Your task to perform on an android device: turn notification dots off Image 0: 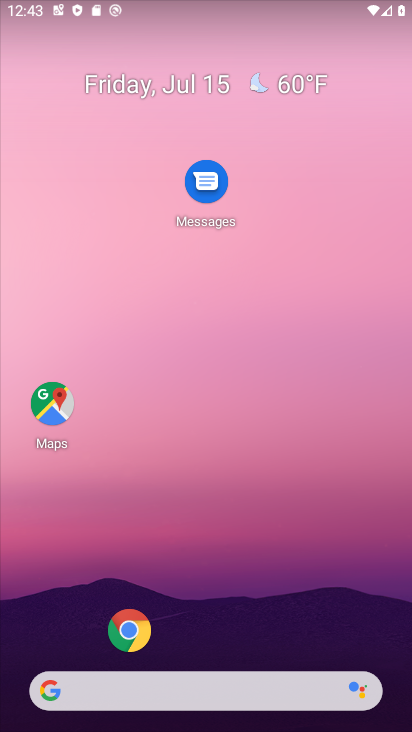
Step 0: drag from (7, 699) to (202, 224)
Your task to perform on an android device: turn notification dots off Image 1: 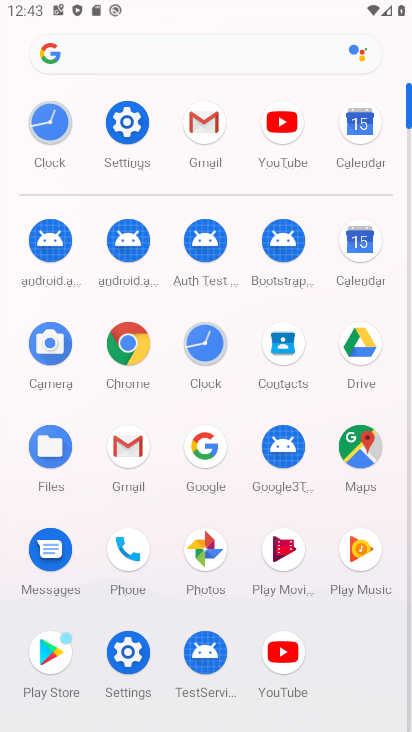
Step 1: click (122, 659)
Your task to perform on an android device: turn notification dots off Image 2: 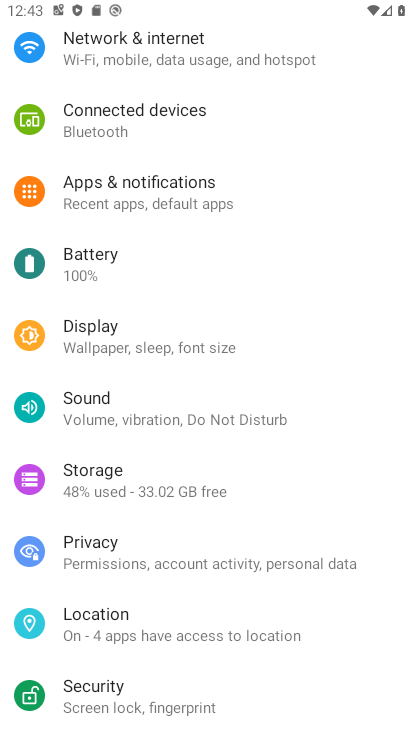
Step 2: click (154, 199)
Your task to perform on an android device: turn notification dots off Image 3: 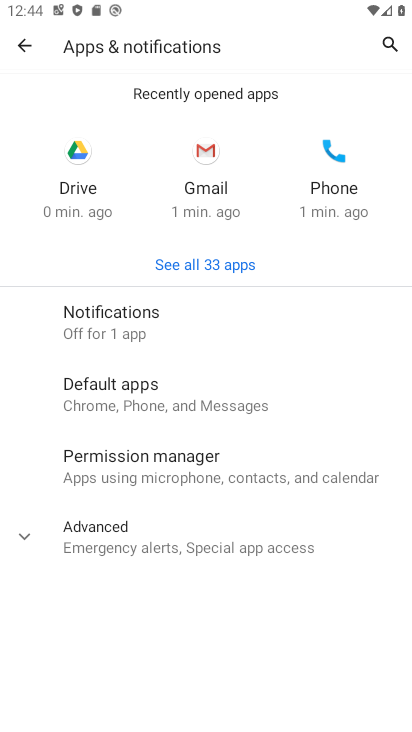
Step 3: click (126, 533)
Your task to perform on an android device: turn notification dots off Image 4: 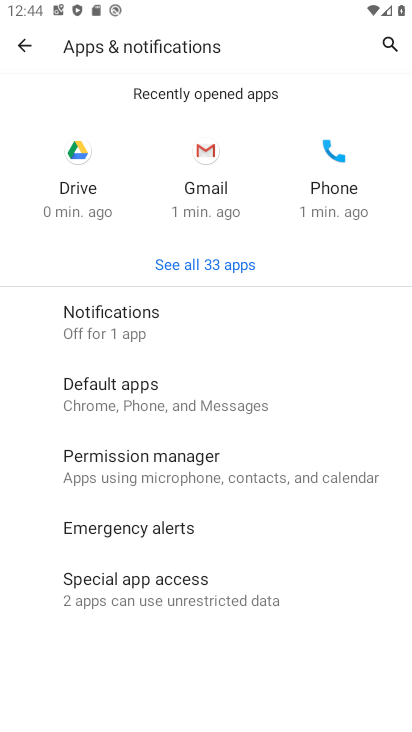
Step 4: click (172, 323)
Your task to perform on an android device: turn notification dots off Image 5: 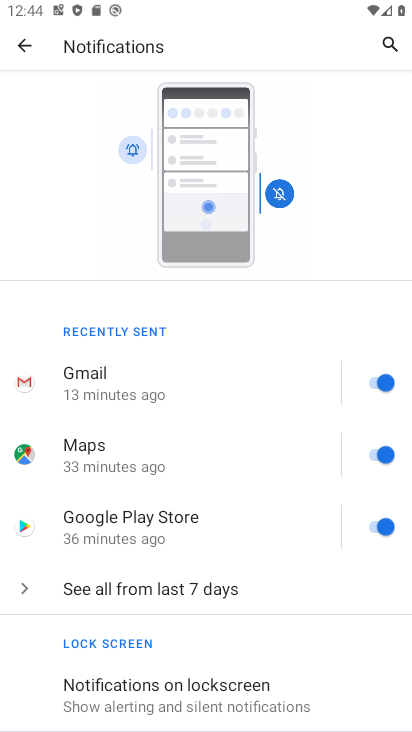
Step 5: drag from (277, 673) to (280, 381)
Your task to perform on an android device: turn notification dots off Image 6: 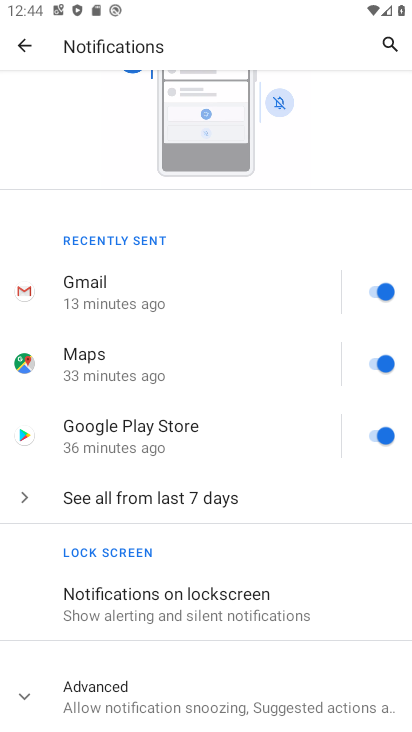
Step 6: drag from (181, 672) to (196, 414)
Your task to perform on an android device: turn notification dots off Image 7: 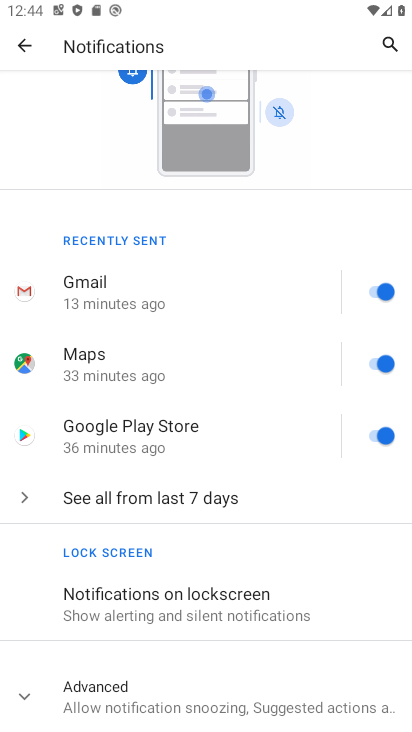
Step 7: drag from (172, 685) to (175, 290)
Your task to perform on an android device: turn notification dots off Image 8: 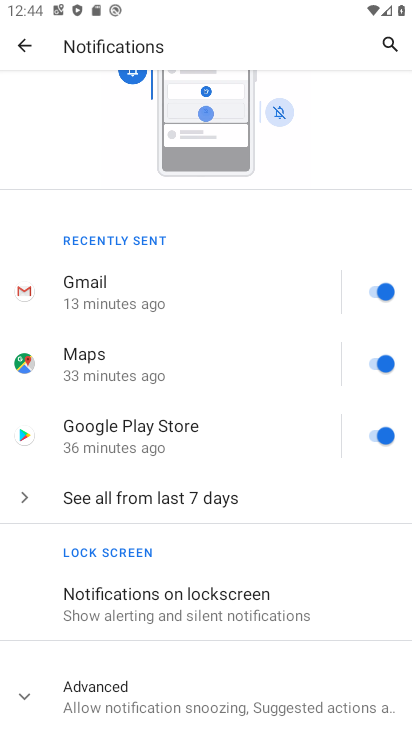
Step 8: drag from (42, 623) to (84, 355)
Your task to perform on an android device: turn notification dots off Image 9: 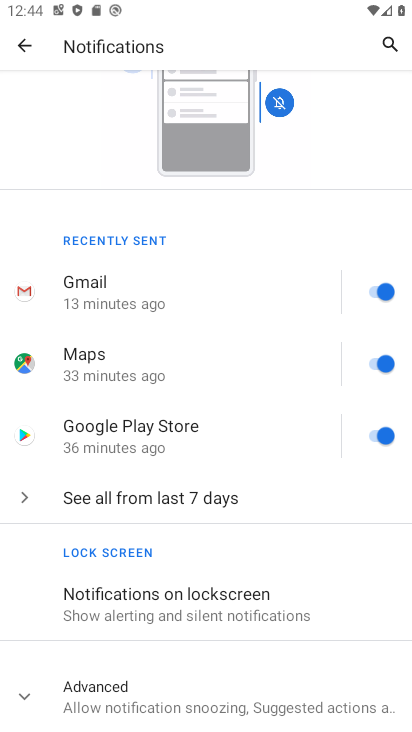
Step 9: drag from (389, 694) to (388, 147)
Your task to perform on an android device: turn notification dots off Image 10: 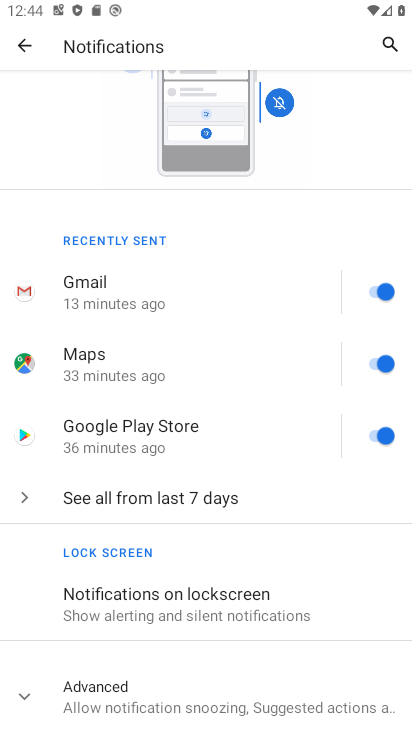
Step 10: click (164, 698)
Your task to perform on an android device: turn notification dots off Image 11: 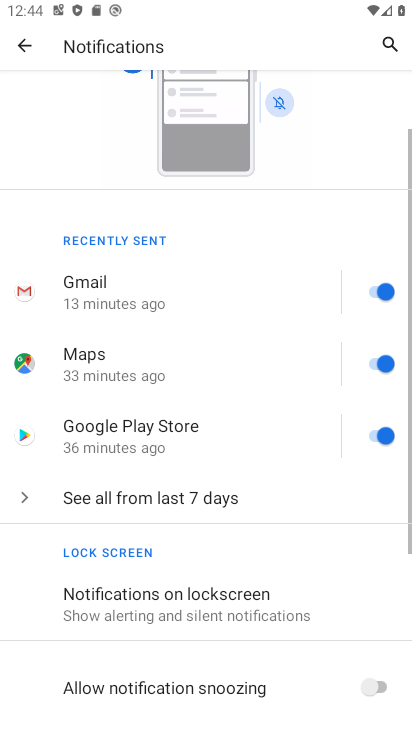
Step 11: drag from (167, 665) to (159, 62)
Your task to perform on an android device: turn notification dots off Image 12: 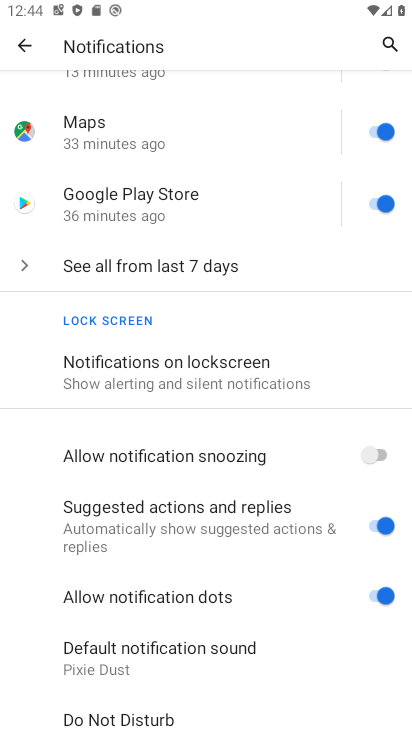
Step 12: click (395, 593)
Your task to perform on an android device: turn notification dots off Image 13: 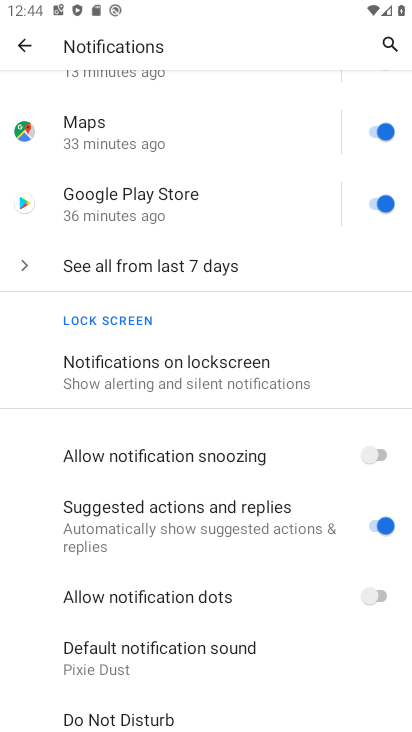
Step 13: task complete